Your task to perform on an android device: open app "Skype" Image 0: 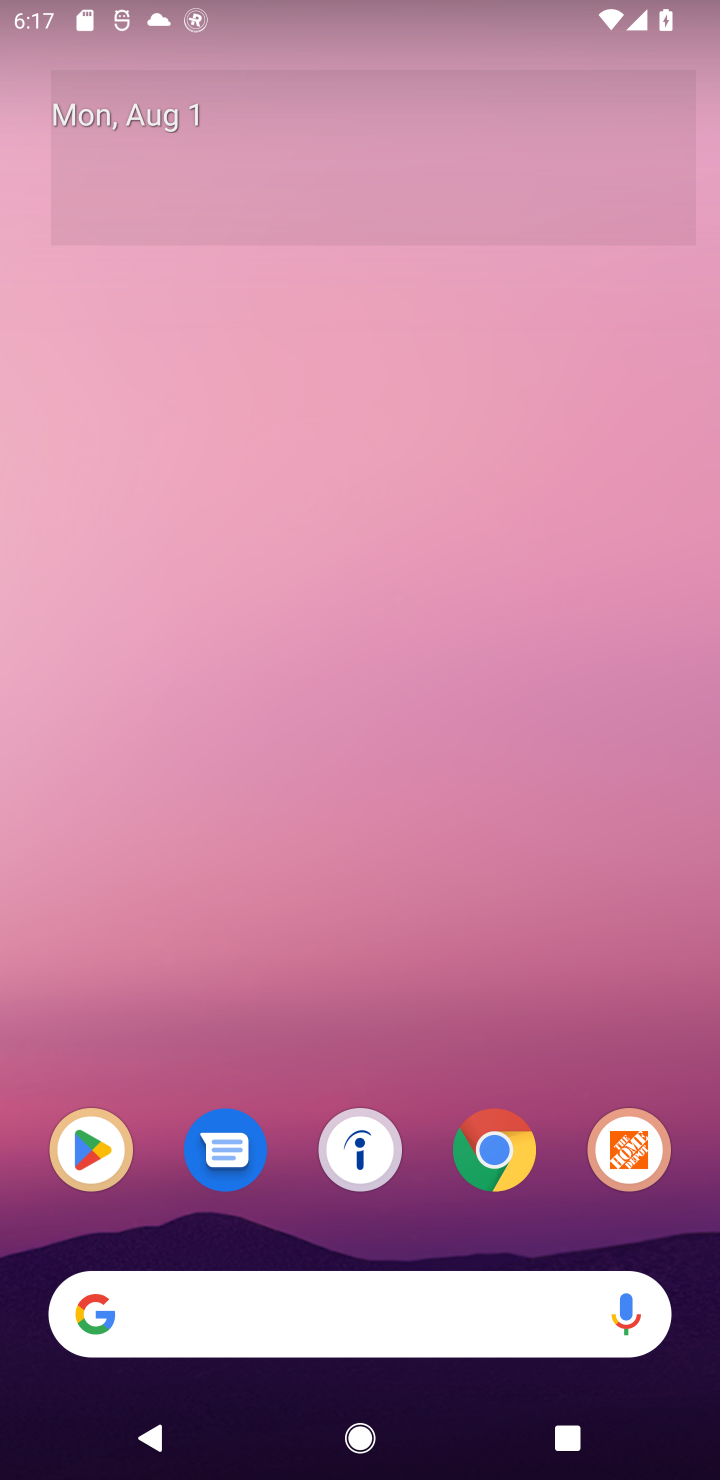
Step 0: drag from (299, 1244) to (429, 330)
Your task to perform on an android device: open app "Skype" Image 1: 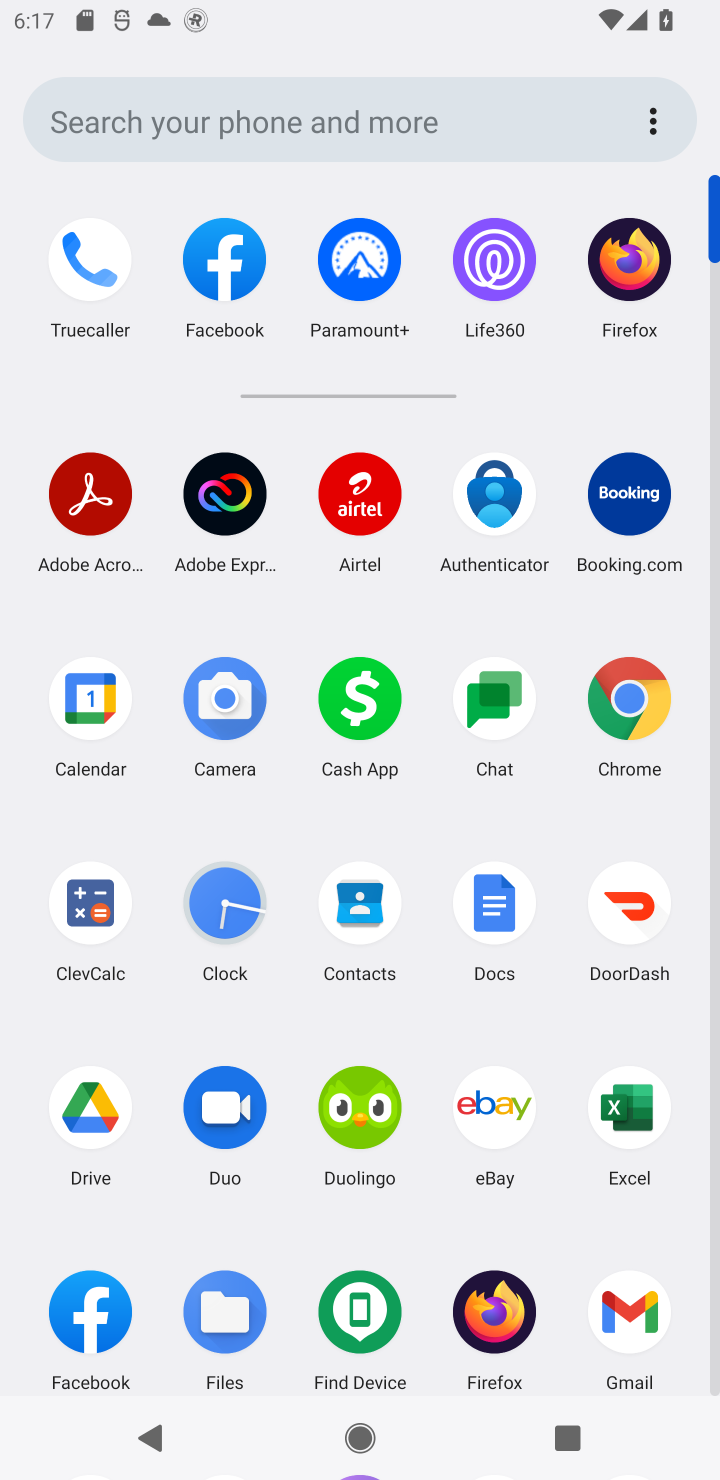
Step 1: click (433, 152)
Your task to perform on an android device: open app "Skype" Image 2: 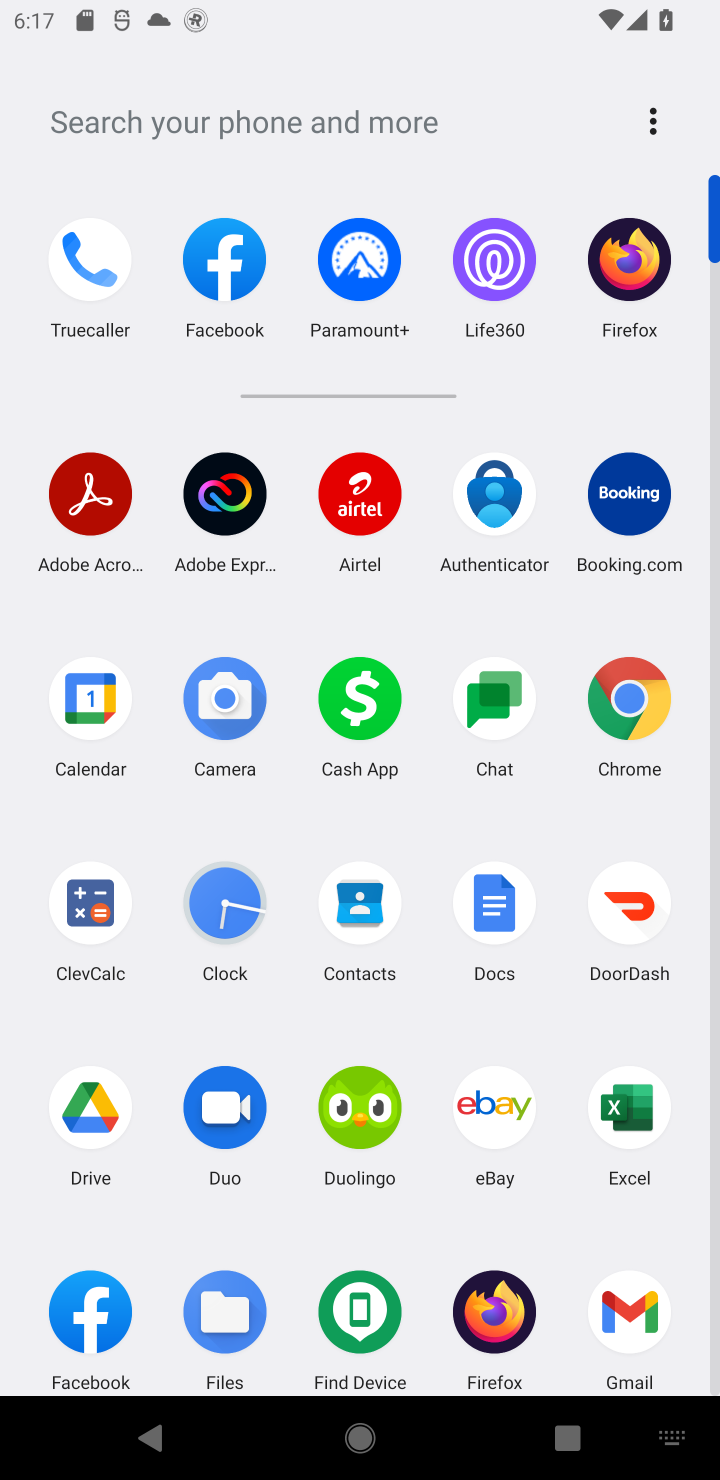
Step 2: type "skype"
Your task to perform on an android device: open app "Skype" Image 3: 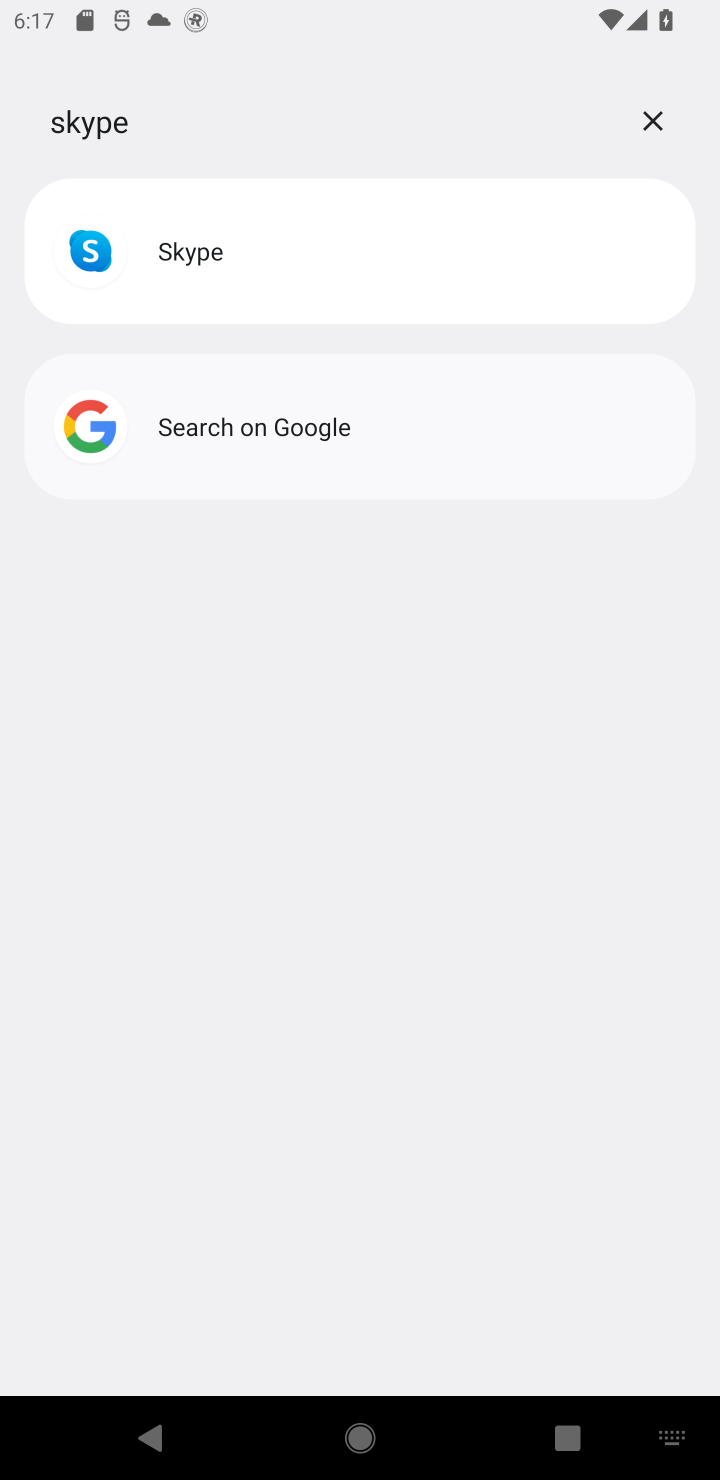
Step 3: click (416, 301)
Your task to perform on an android device: open app "Skype" Image 4: 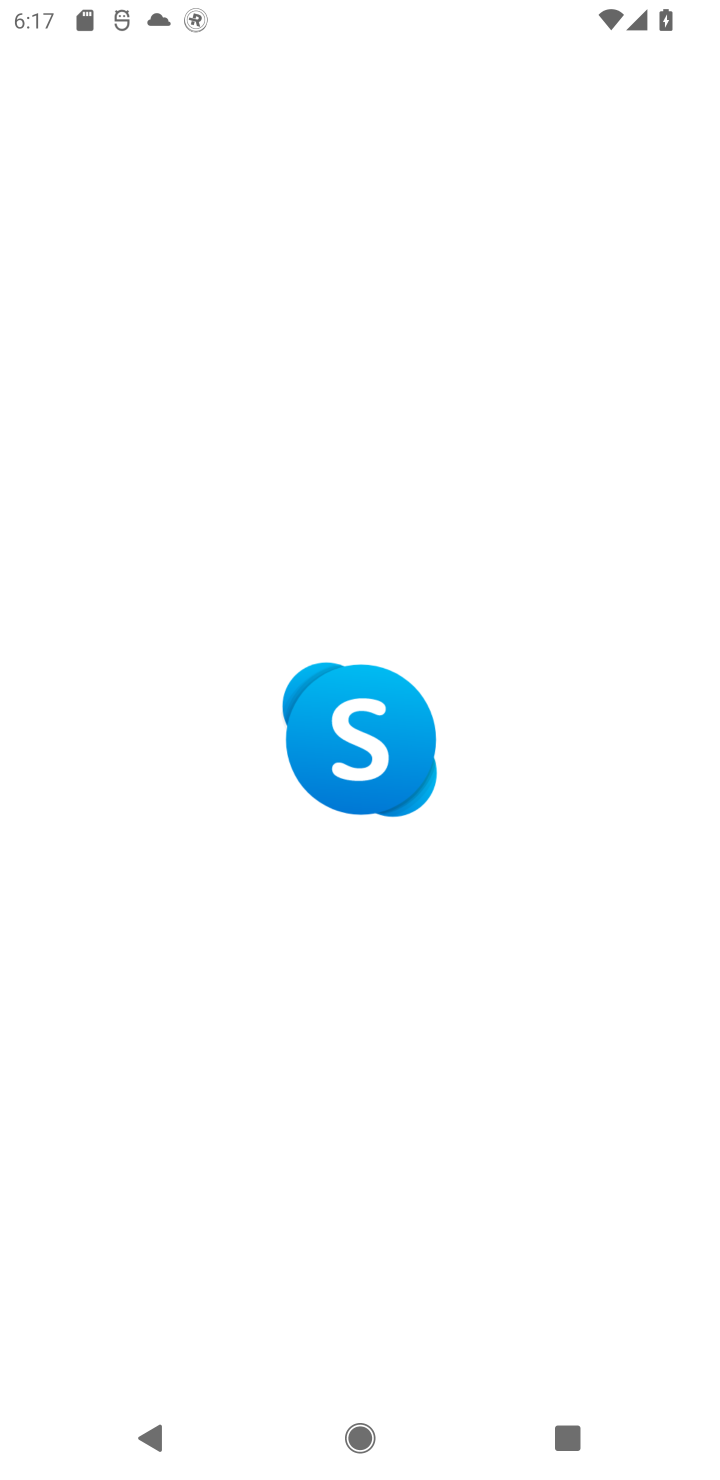
Step 4: task complete